Your task to perform on an android device: turn off notifications settings in the gmail app Image 0: 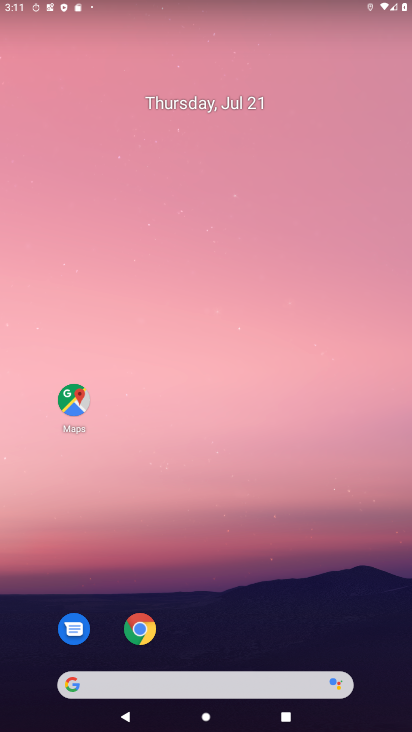
Step 0: click (403, 242)
Your task to perform on an android device: turn off notifications settings in the gmail app Image 1: 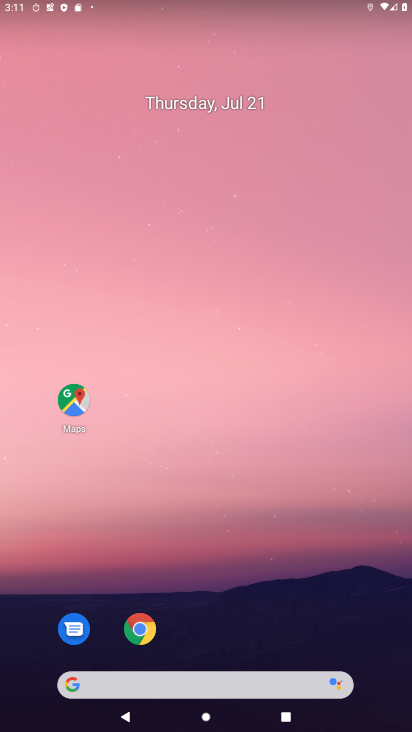
Step 1: drag from (236, 516) to (217, 55)
Your task to perform on an android device: turn off notifications settings in the gmail app Image 2: 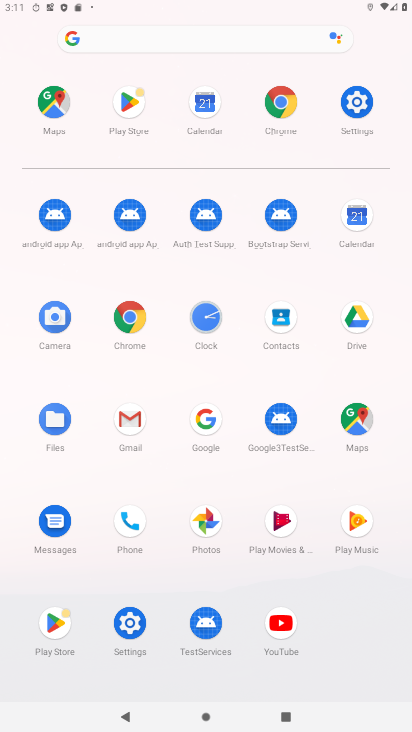
Step 2: click (121, 415)
Your task to perform on an android device: turn off notifications settings in the gmail app Image 3: 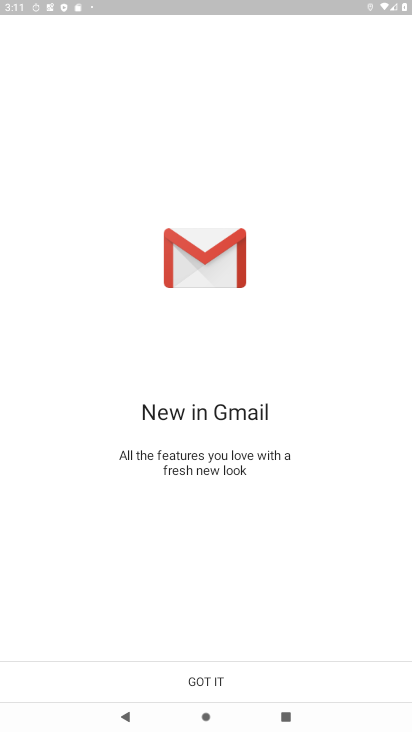
Step 3: click (217, 684)
Your task to perform on an android device: turn off notifications settings in the gmail app Image 4: 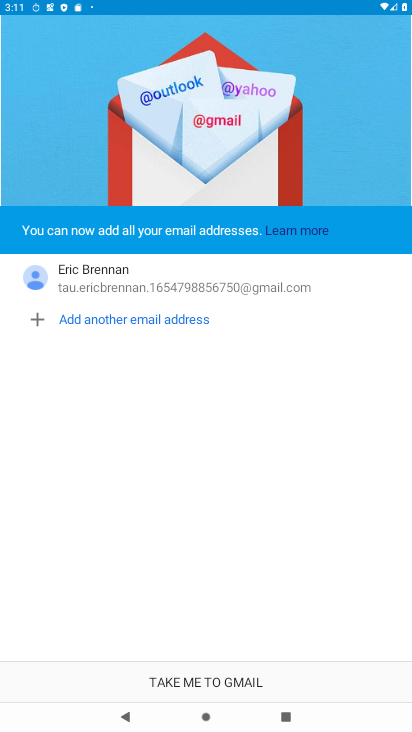
Step 4: click (217, 684)
Your task to perform on an android device: turn off notifications settings in the gmail app Image 5: 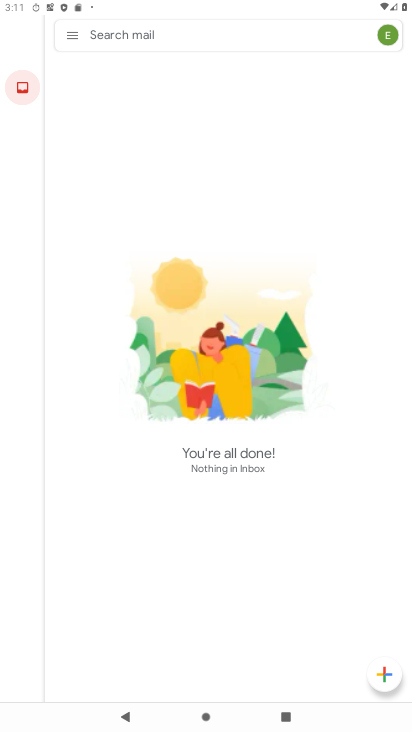
Step 5: click (59, 38)
Your task to perform on an android device: turn off notifications settings in the gmail app Image 6: 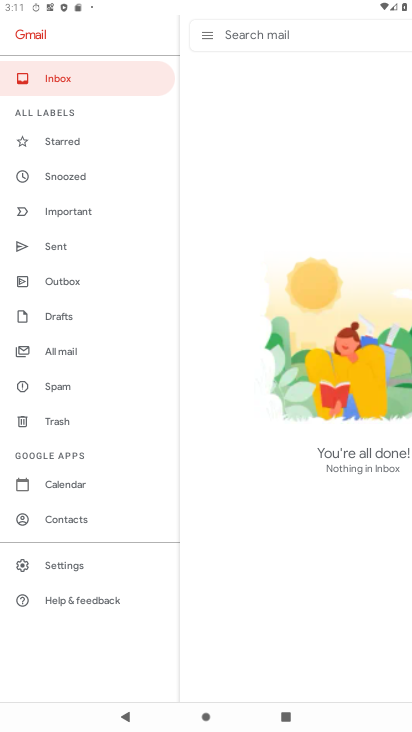
Step 6: drag from (81, 617) to (88, 571)
Your task to perform on an android device: turn off notifications settings in the gmail app Image 7: 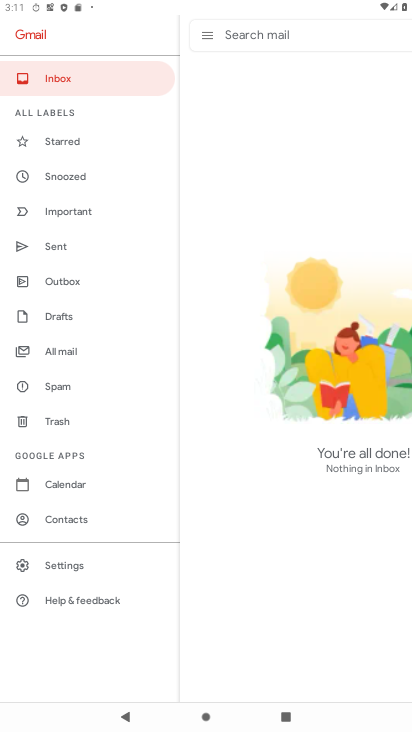
Step 7: click (77, 569)
Your task to perform on an android device: turn off notifications settings in the gmail app Image 8: 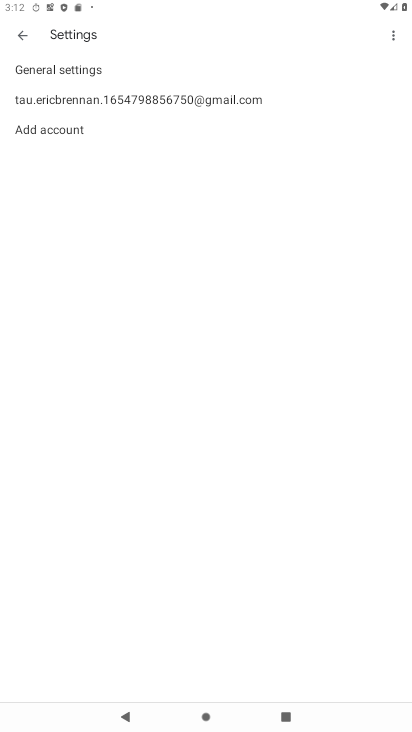
Step 8: click (73, 73)
Your task to perform on an android device: turn off notifications settings in the gmail app Image 9: 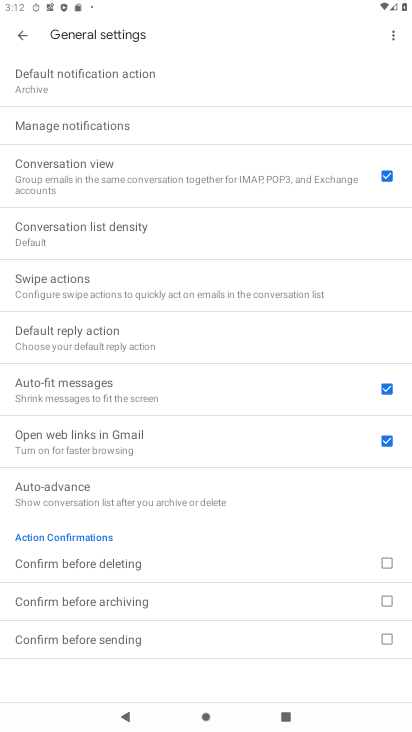
Step 9: click (84, 130)
Your task to perform on an android device: turn off notifications settings in the gmail app Image 10: 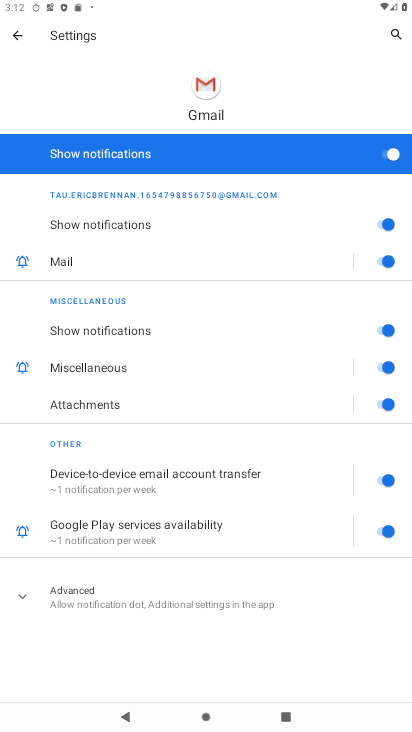
Step 10: click (356, 144)
Your task to perform on an android device: turn off notifications settings in the gmail app Image 11: 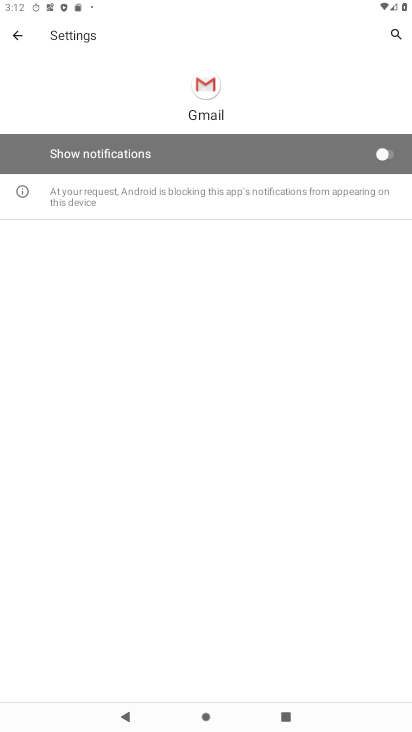
Step 11: task complete